Your task to perform on an android device: Go to Yahoo.com Image 0: 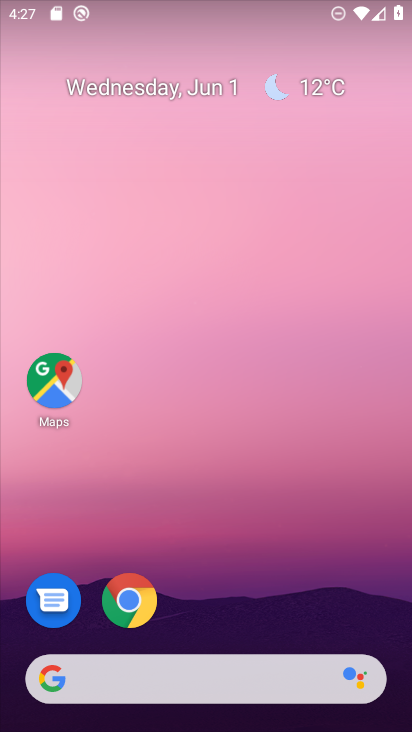
Step 0: click (134, 598)
Your task to perform on an android device: Go to Yahoo.com Image 1: 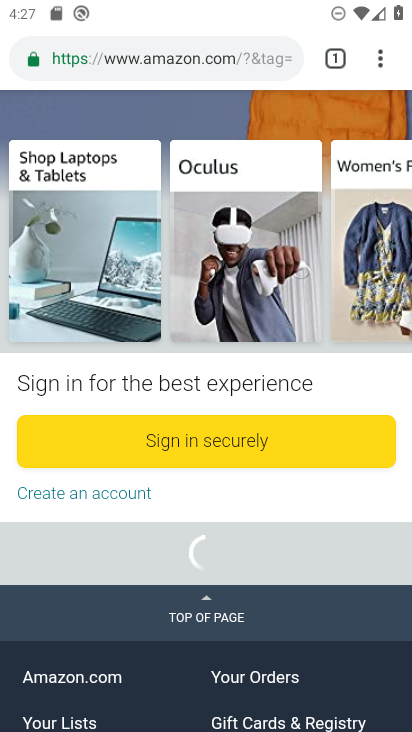
Step 1: drag from (237, 46) to (270, 293)
Your task to perform on an android device: Go to Yahoo.com Image 2: 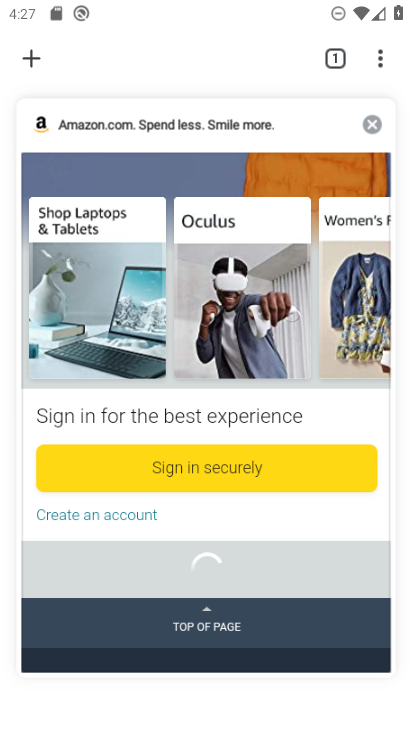
Step 2: click (270, 128)
Your task to perform on an android device: Go to Yahoo.com Image 3: 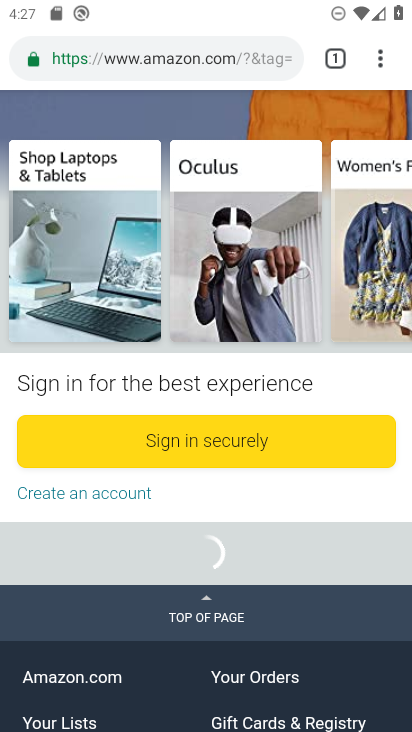
Step 3: click (299, 54)
Your task to perform on an android device: Go to Yahoo.com Image 4: 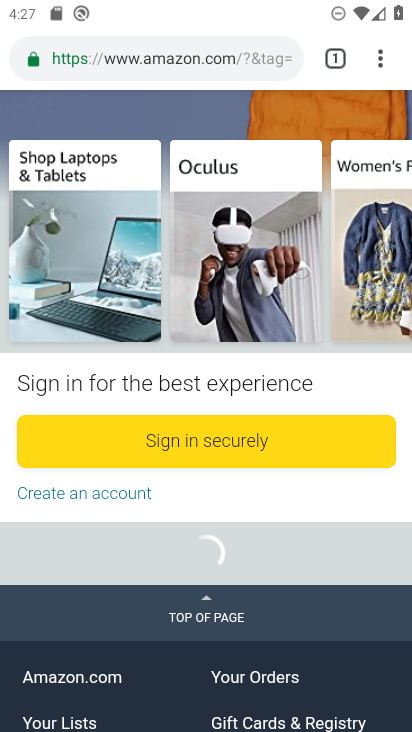
Step 4: click (251, 47)
Your task to perform on an android device: Go to Yahoo.com Image 5: 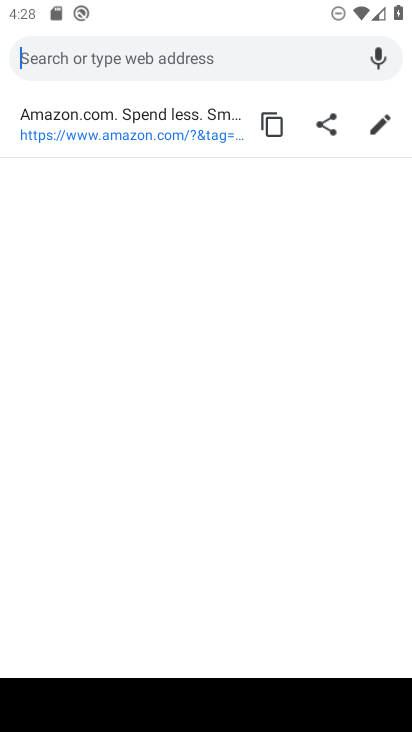
Step 5: type "yahoo.com"
Your task to perform on an android device: Go to Yahoo.com Image 6: 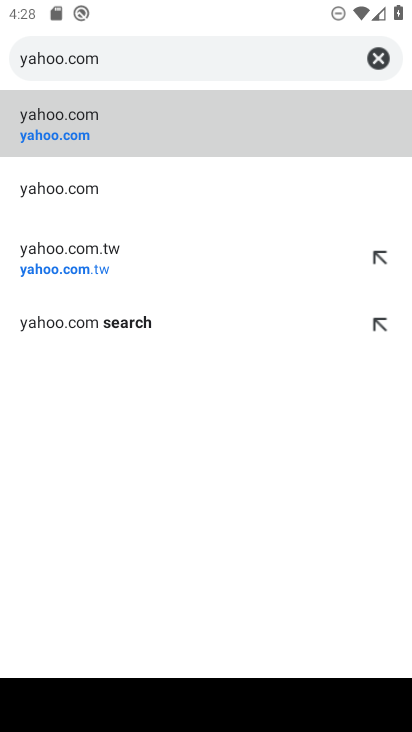
Step 6: click (79, 116)
Your task to perform on an android device: Go to Yahoo.com Image 7: 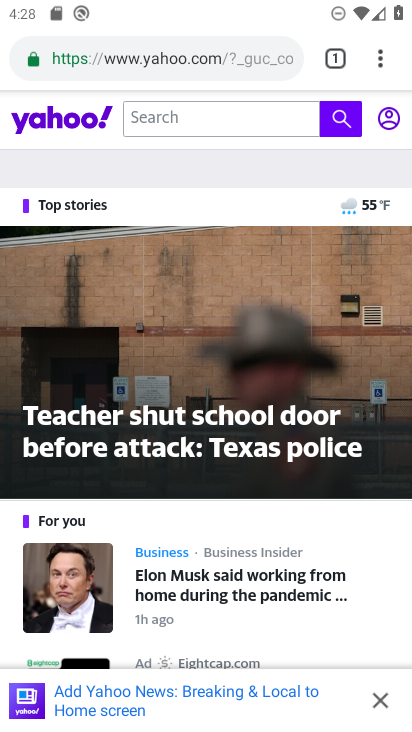
Step 7: task complete